Your task to perform on an android device: When is my next meeting? Image 0: 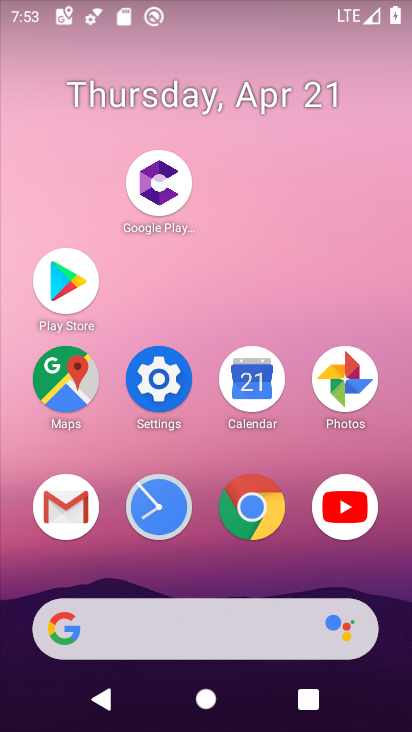
Step 0: click (250, 381)
Your task to perform on an android device: When is my next meeting? Image 1: 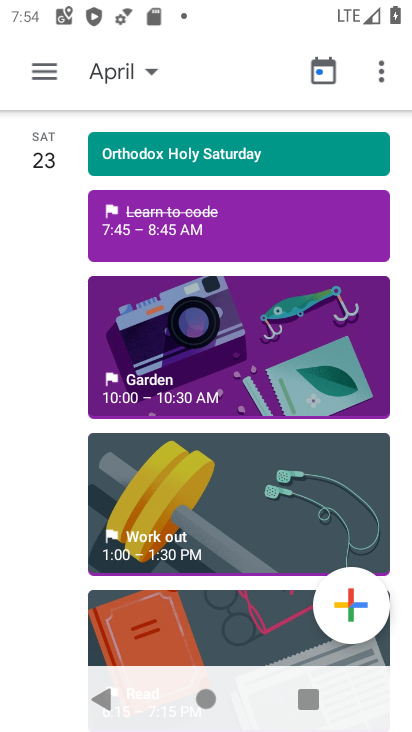
Step 1: click (188, 224)
Your task to perform on an android device: When is my next meeting? Image 2: 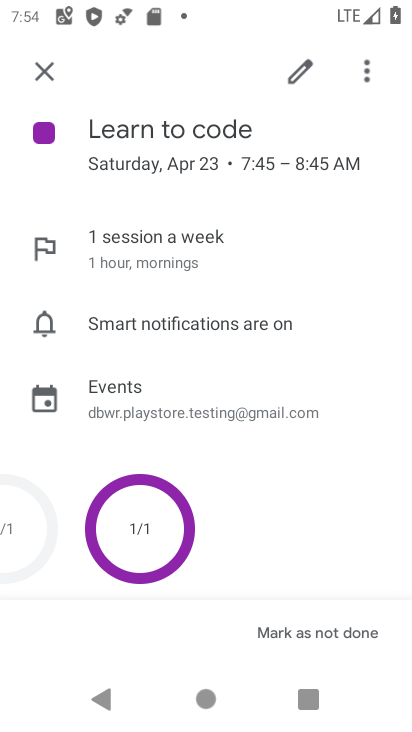
Step 2: task complete